Your task to perform on an android device: change the clock display to analog Image 0: 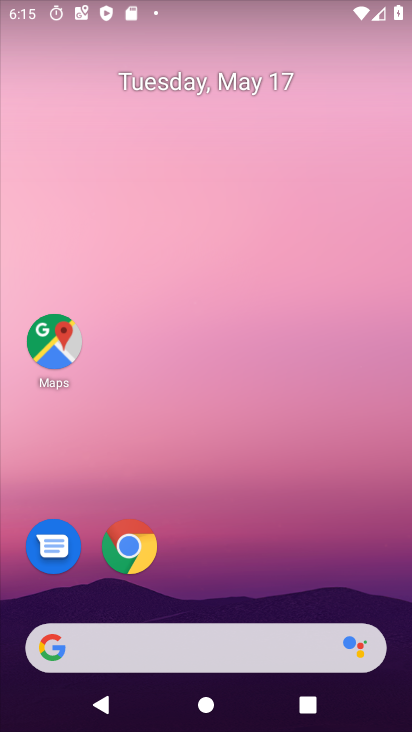
Step 0: drag from (143, 605) to (228, 20)
Your task to perform on an android device: change the clock display to analog Image 1: 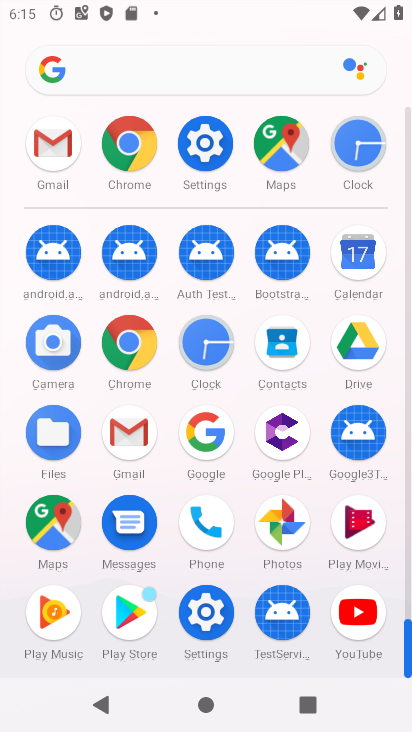
Step 1: click (201, 332)
Your task to perform on an android device: change the clock display to analog Image 2: 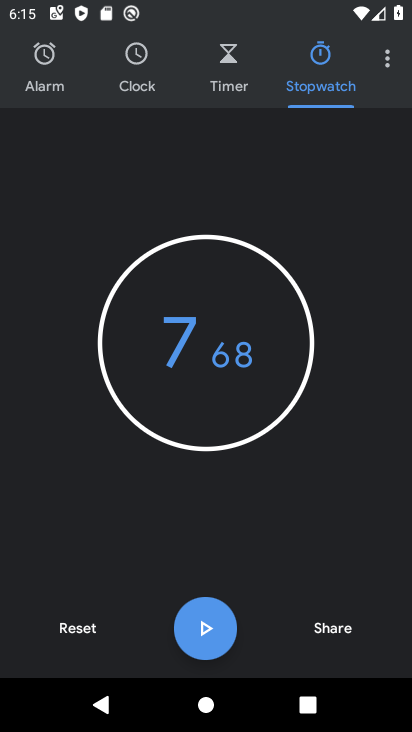
Step 2: click (391, 58)
Your task to perform on an android device: change the clock display to analog Image 3: 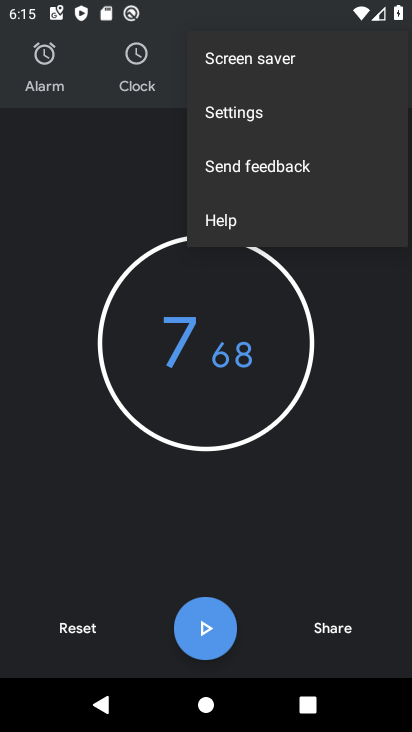
Step 3: click (277, 124)
Your task to perform on an android device: change the clock display to analog Image 4: 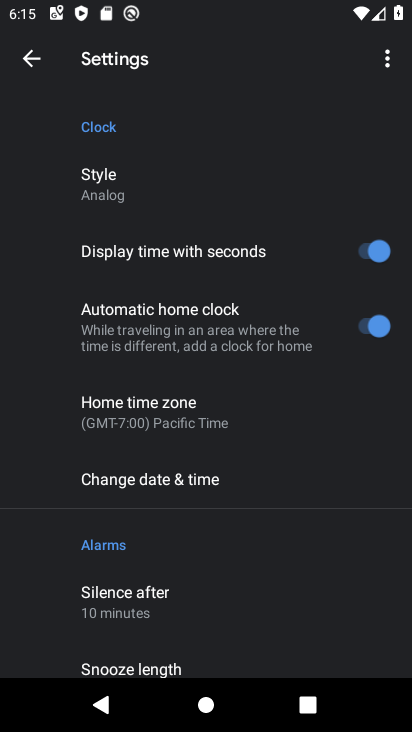
Step 4: click (108, 167)
Your task to perform on an android device: change the clock display to analog Image 5: 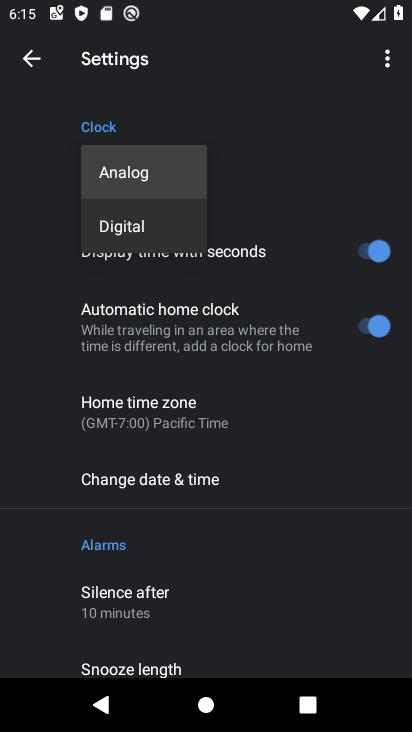
Step 5: click (107, 211)
Your task to perform on an android device: change the clock display to analog Image 6: 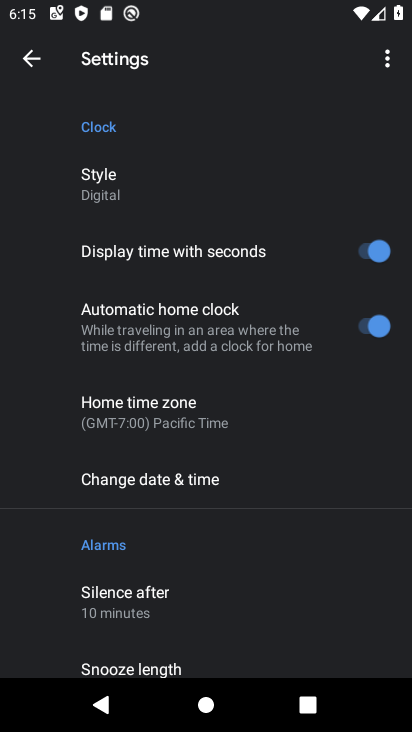
Step 6: task complete